Your task to perform on an android device: turn on priority inbox in the gmail app Image 0: 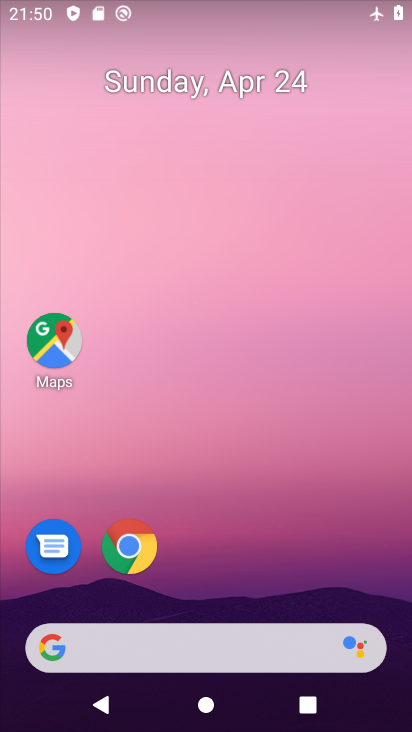
Step 0: drag from (266, 556) to (290, 208)
Your task to perform on an android device: turn on priority inbox in the gmail app Image 1: 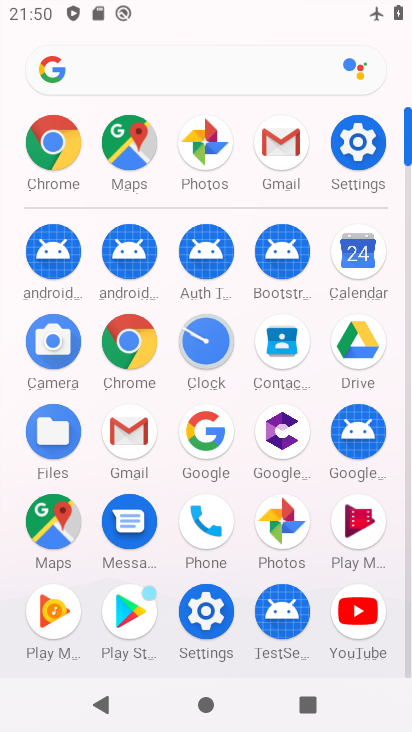
Step 1: click (123, 428)
Your task to perform on an android device: turn on priority inbox in the gmail app Image 2: 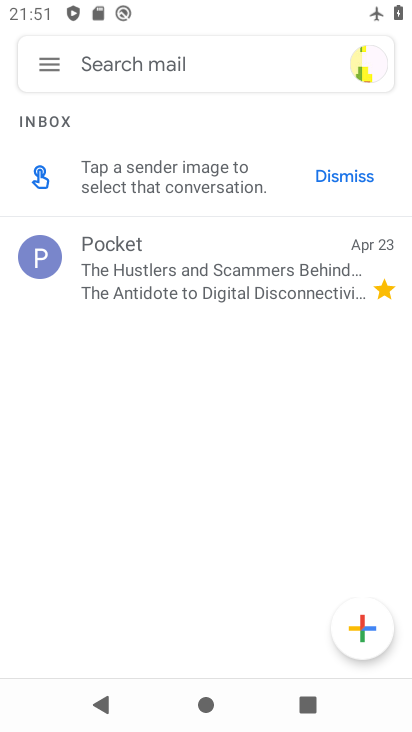
Step 2: click (42, 57)
Your task to perform on an android device: turn on priority inbox in the gmail app Image 3: 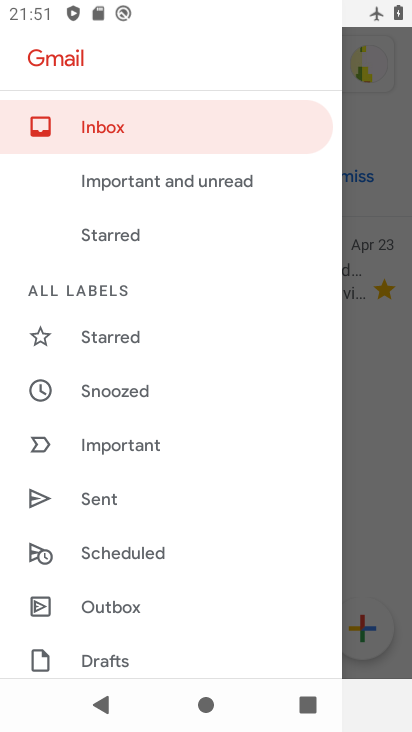
Step 3: drag from (194, 617) to (222, 251)
Your task to perform on an android device: turn on priority inbox in the gmail app Image 4: 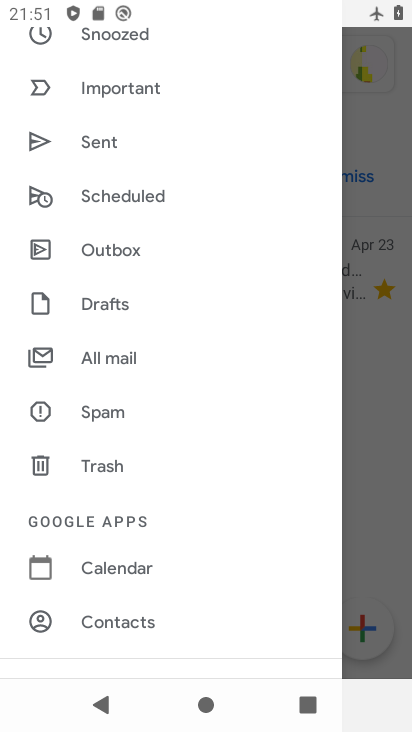
Step 4: drag from (185, 588) to (239, 231)
Your task to perform on an android device: turn on priority inbox in the gmail app Image 5: 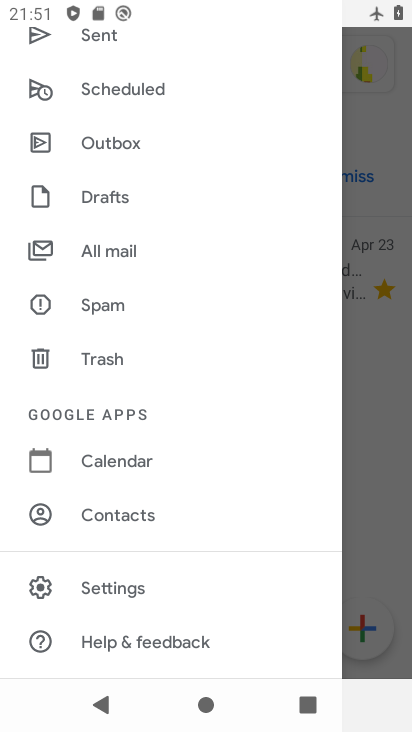
Step 5: click (133, 588)
Your task to perform on an android device: turn on priority inbox in the gmail app Image 6: 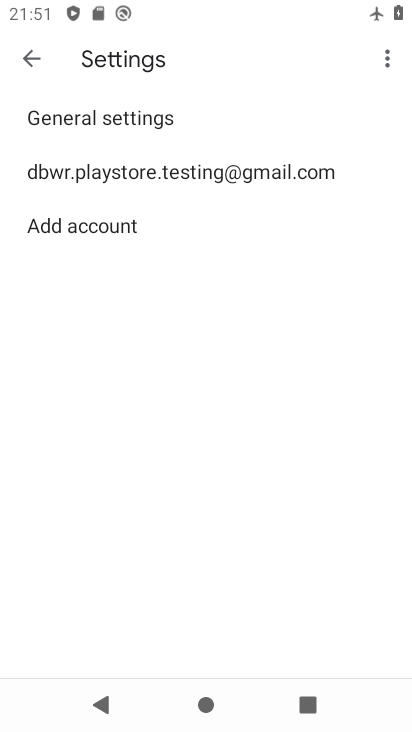
Step 6: click (119, 163)
Your task to perform on an android device: turn on priority inbox in the gmail app Image 7: 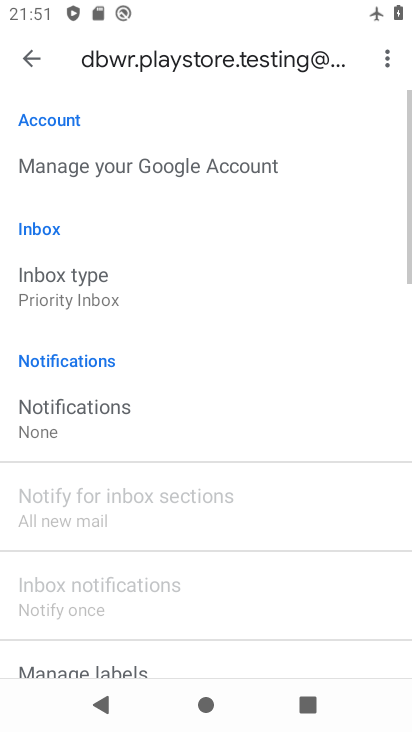
Step 7: drag from (194, 571) to (258, 229)
Your task to perform on an android device: turn on priority inbox in the gmail app Image 8: 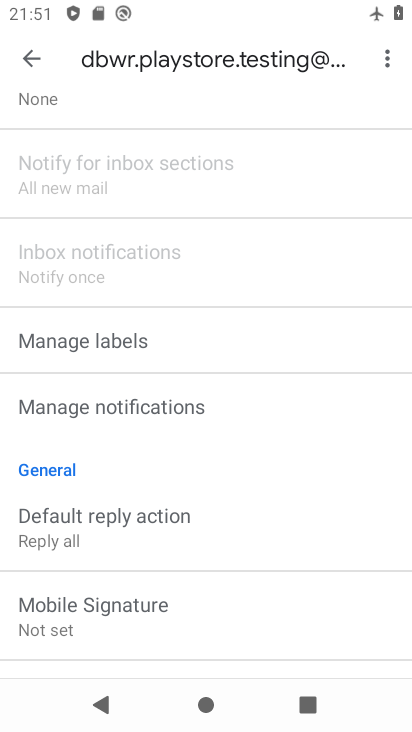
Step 8: drag from (197, 600) to (269, 244)
Your task to perform on an android device: turn on priority inbox in the gmail app Image 9: 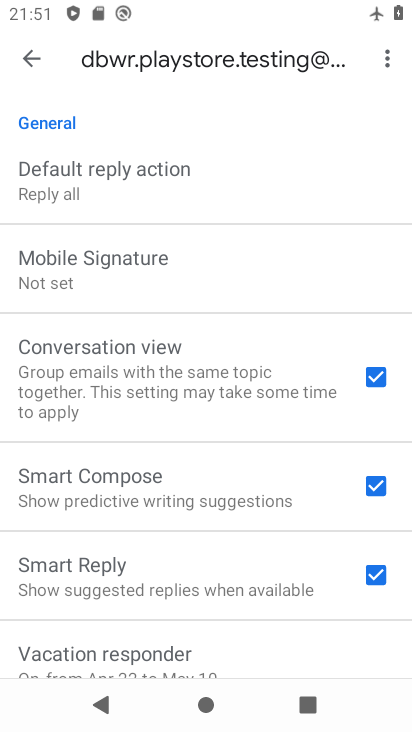
Step 9: drag from (216, 117) to (224, 606)
Your task to perform on an android device: turn on priority inbox in the gmail app Image 10: 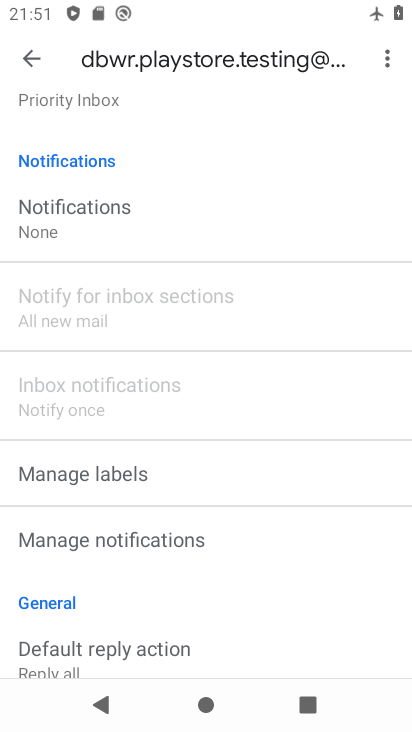
Step 10: drag from (135, 230) to (151, 589)
Your task to perform on an android device: turn on priority inbox in the gmail app Image 11: 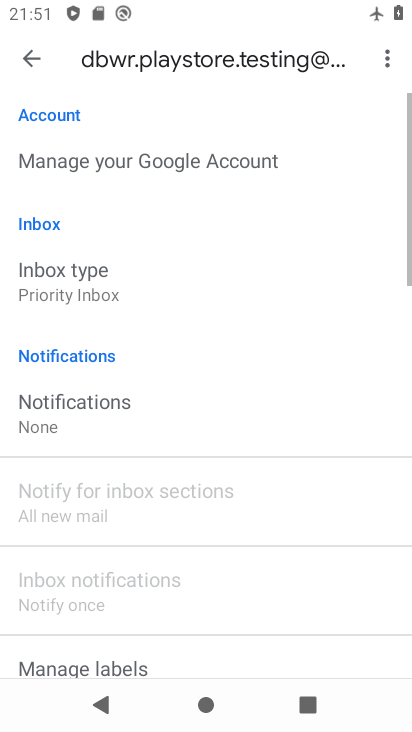
Step 11: click (103, 290)
Your task to perform on an android device: turn on priority inbox in the gmail app Image 12: 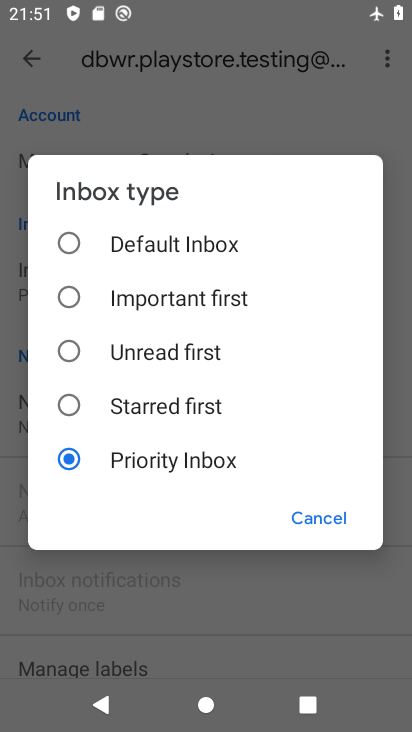
Step 12: task complete